Your task to perform on an android device: What's on my calendar today? Image 0: 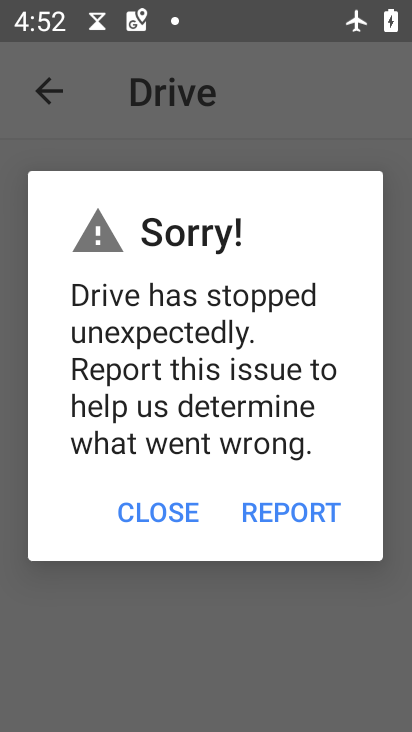
Step 0: press home button
Your task to perform on an android device: What's on my calendar today? Image 1: 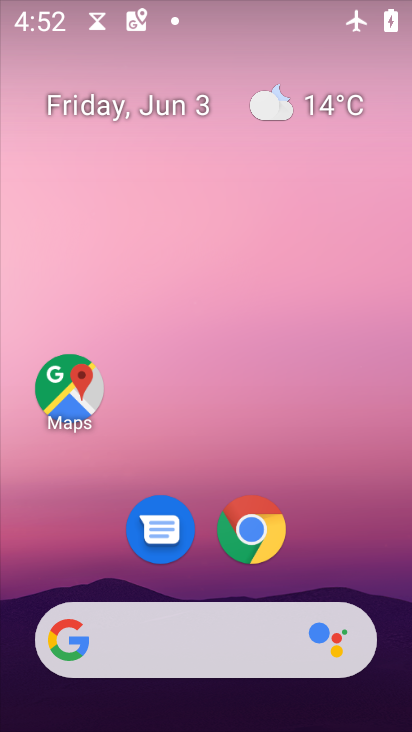
Step 1: drag from (320, 380) to (274, 16)
Your task to perform on an android device: What's on my calendar today? Image 2: 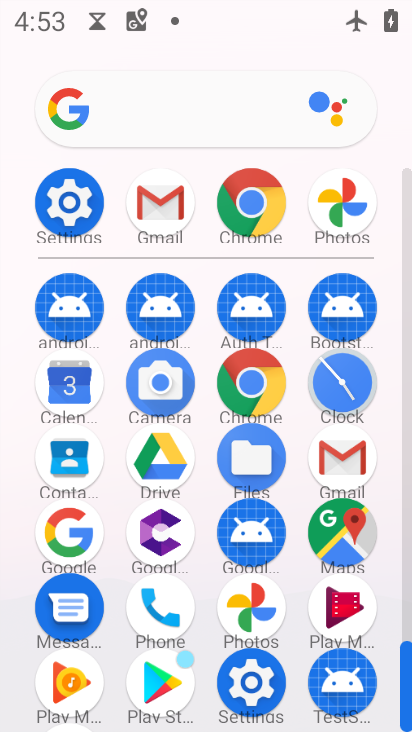
Step 2: click (77, 394)
Your task to perform on an android device: What's on my calendar today? Image 3: 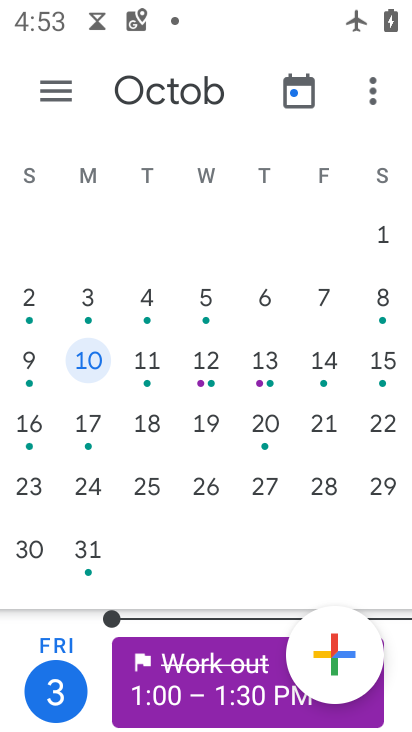
Step 3: task complete